Your task to perform on an android device: turn notification dots off Image 0: 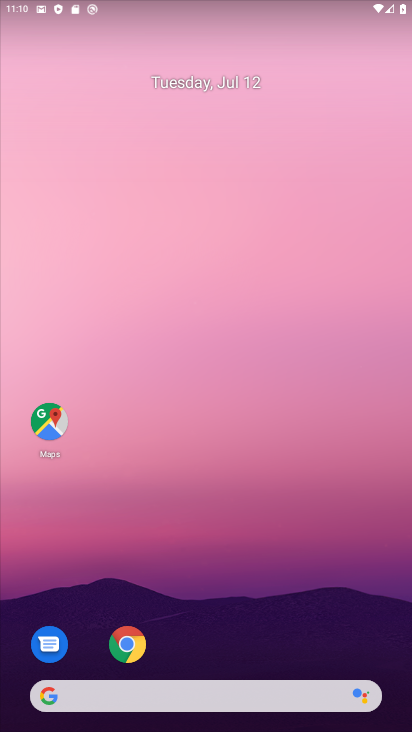
Step 0: drag from (223, 555) to (314, 86)
Your task to perform on an android device: turn notification dots off Image 1: 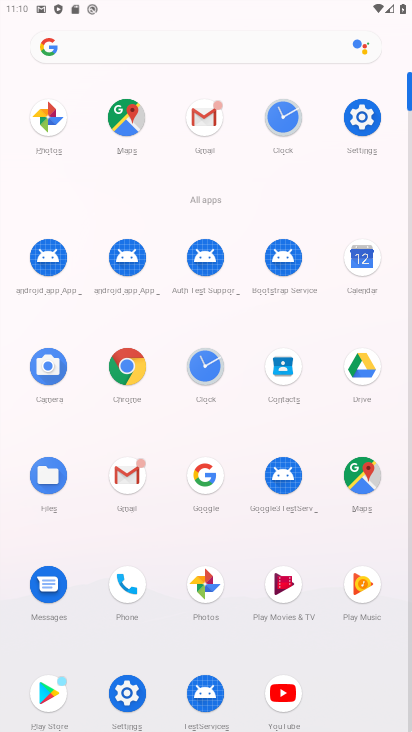
Step 1: click (137, 691)
Your task to perform on an android device: turn notification dots off Image 2: 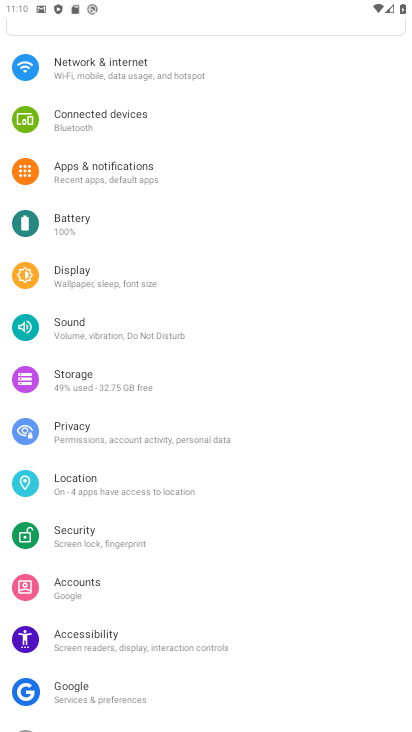
Step 2: click (195, 182)
Your task to perform on an android device: turn notification dots off Image 3: 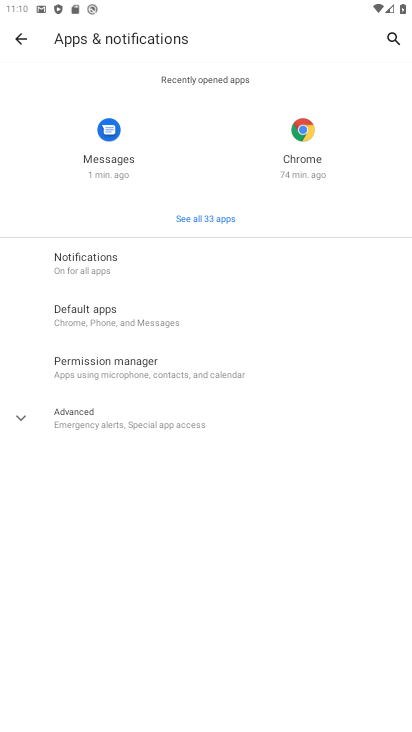
Step 3: click (191, 263)
Your task to perform on an android device: turn notification dots off Image 4: 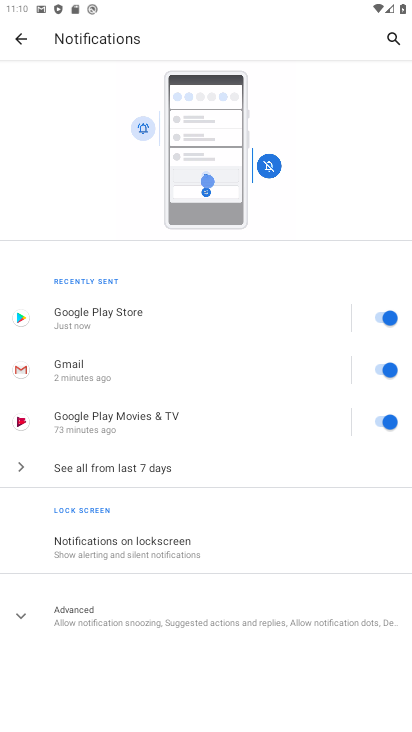
Step 4: click (119, 610)
Your task to perform on an android device: turn notification dots off Image 5: 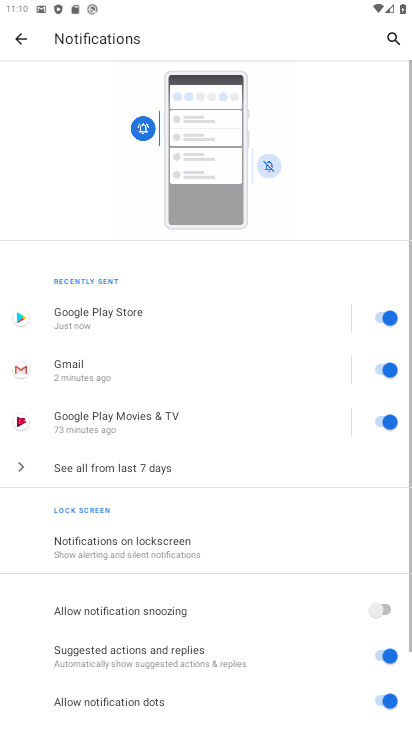
Step 5: drag from (143, 605) to (282, 224)
Your task to perform on an android device: turn notification dots off Image 6: 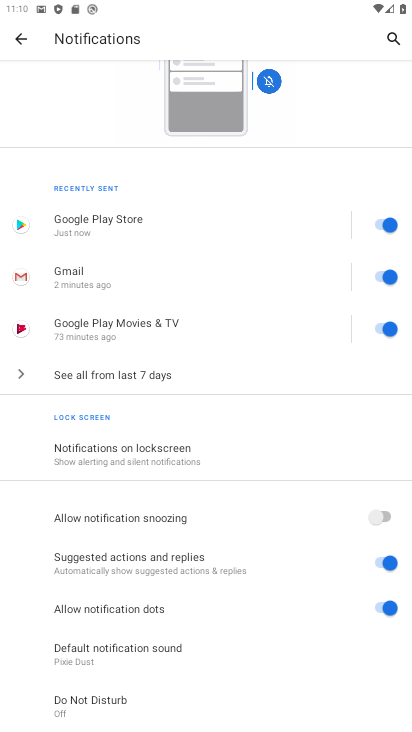
Step 6: click (369, 599)
Your task to perform on an android device: turn notification dots off Image 7: 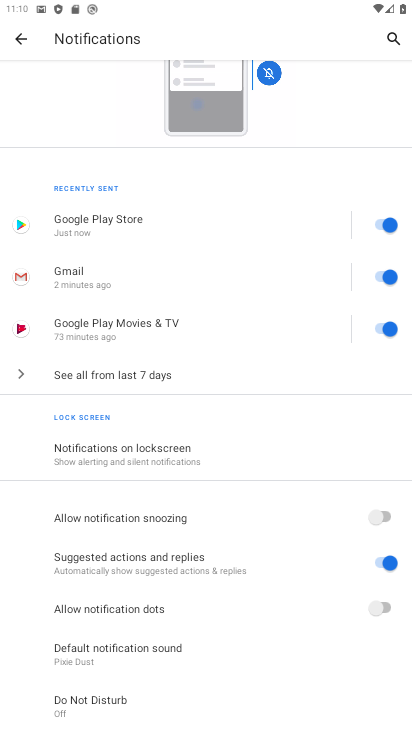
Step 7: task complete